Your task to perform on an android device: Open Chrome and go to the settings page Image 0: 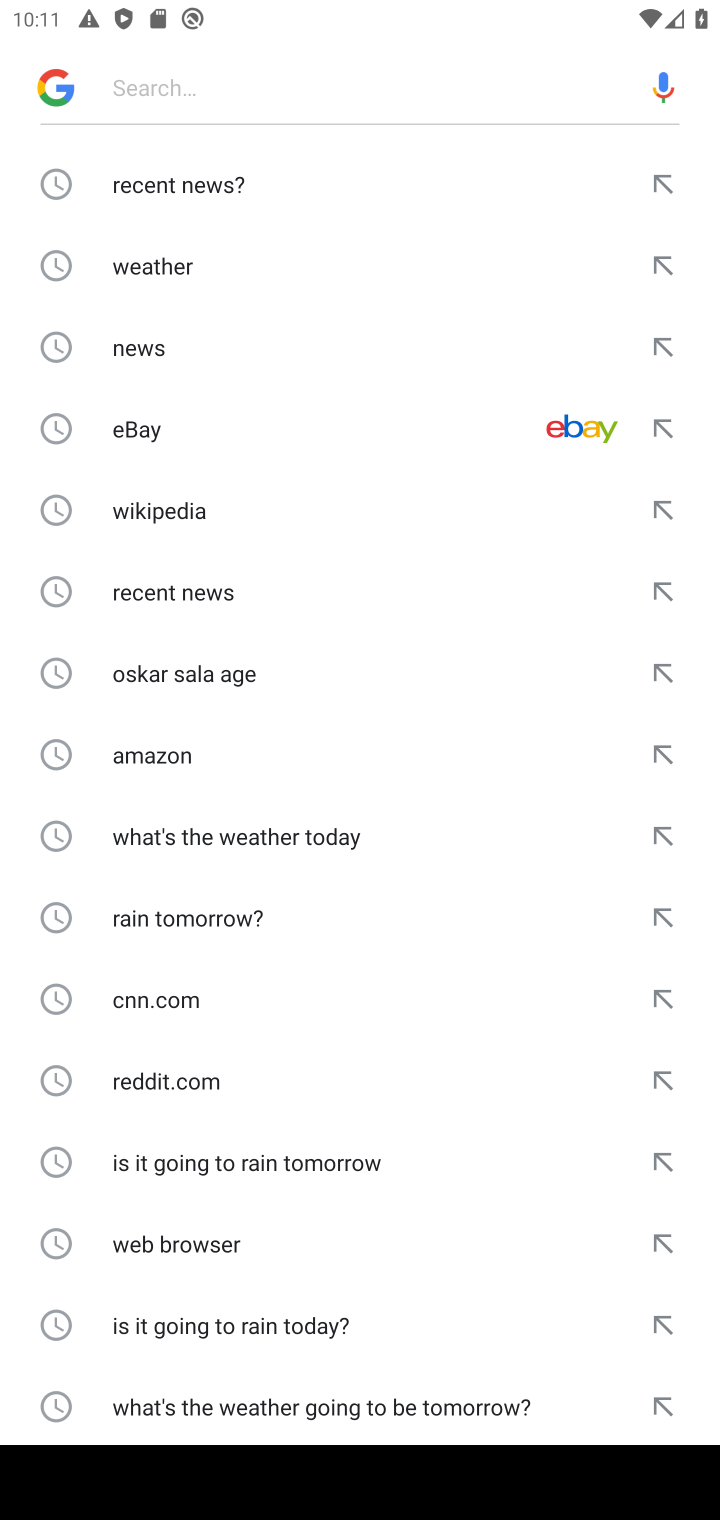
Step 0: press home button
Your task to perform on an android device: Open Chrome and go to the settings page Image 1: 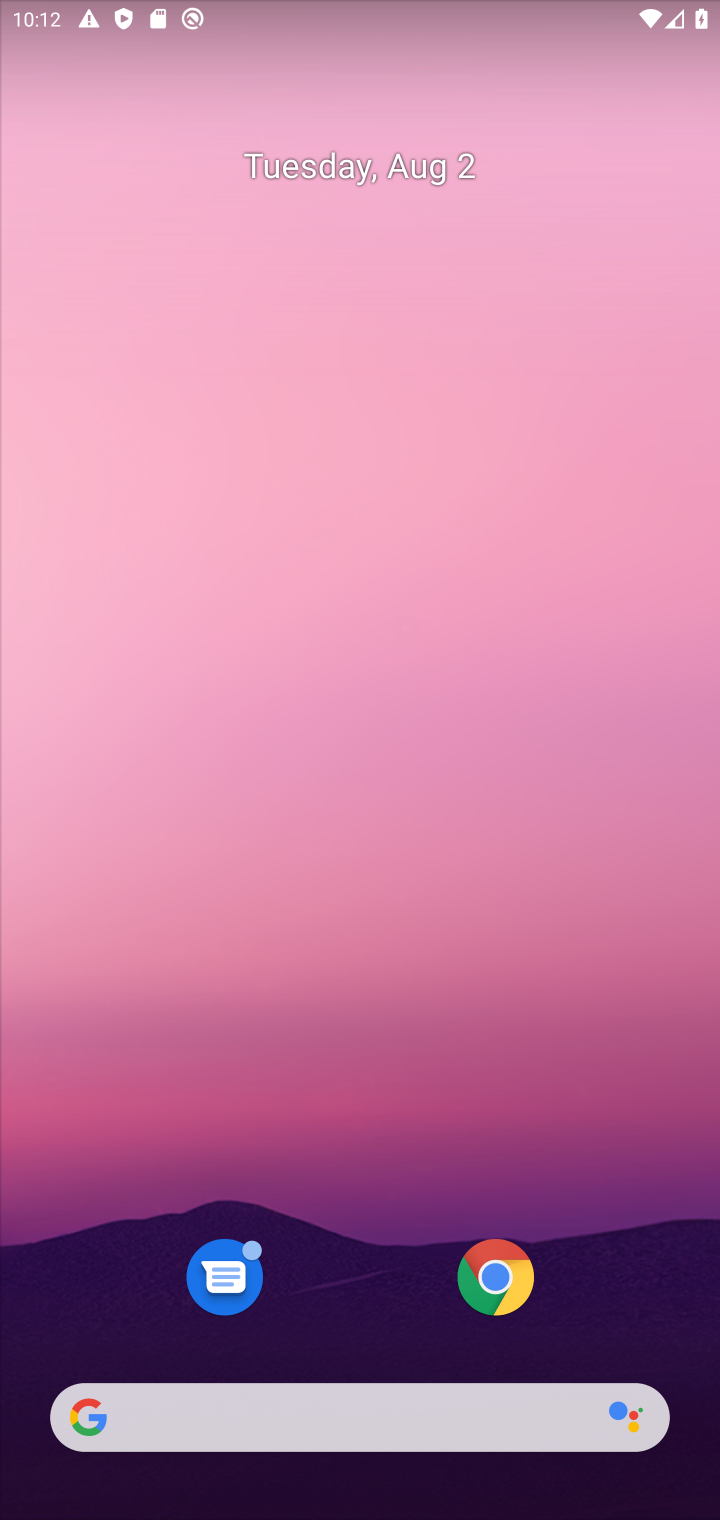
Step 1: drag from (346, 1063) to (295, 580)
Your task to perform on an android device: Open Chrome and go to the settings page Image 2: 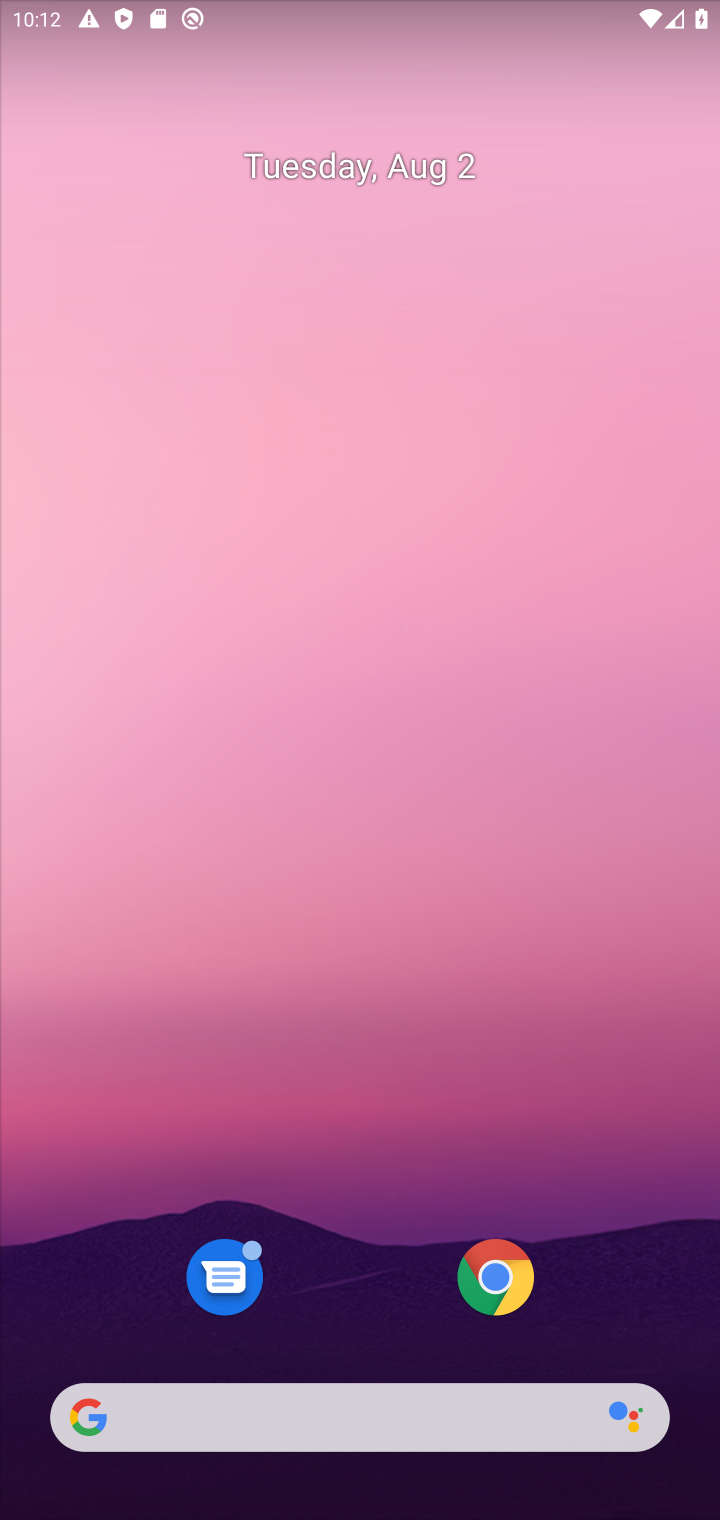
Step 2: click (498, 1292)
Your task to perform on an android device: Open Chrome and go to the settings page Image 3: 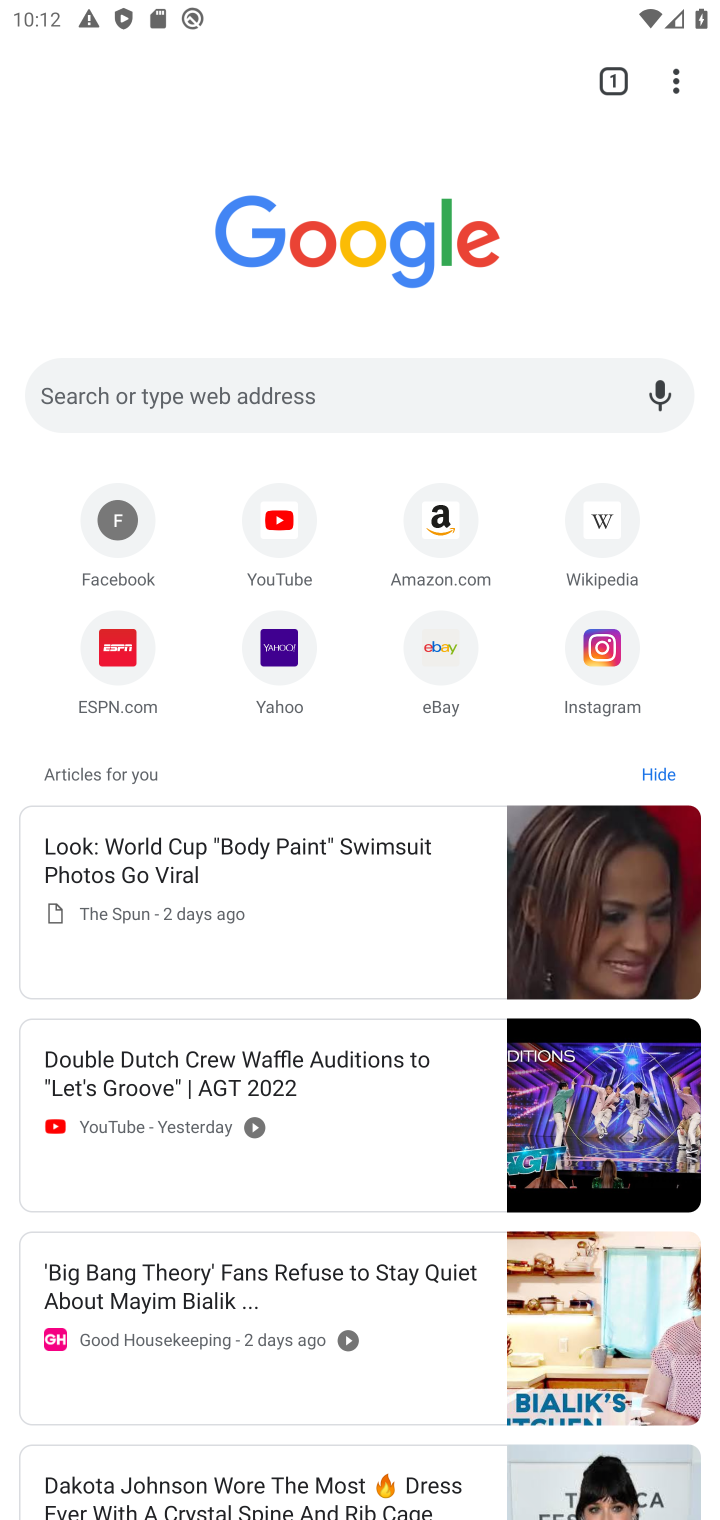
Step 3: task complete